Your task to perform on an android device: turn off data saver in the chrome app Image 0: 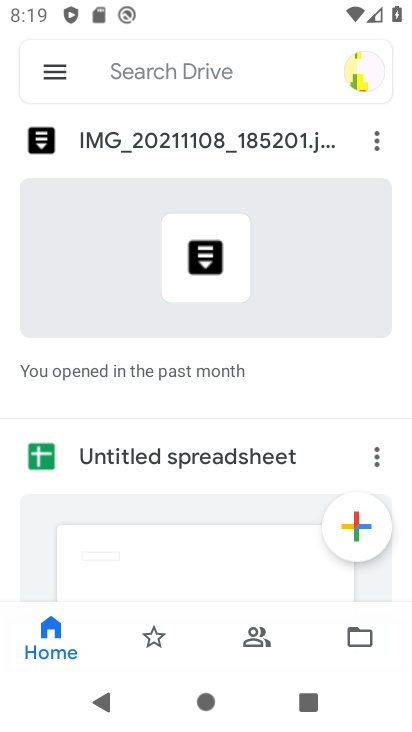
Step 0: press home button
Your task to perform on an android device: turn off data saver in the chrome app Image 1: 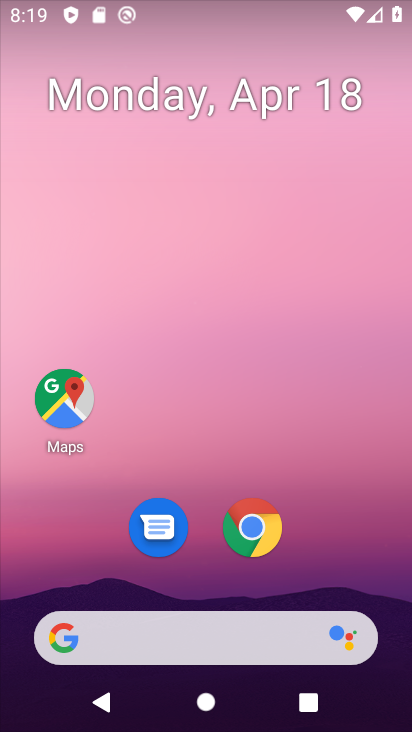
Step 1: click (264, 535)
Your task to perform on an android device: turn off data saver in the chrome app Image 2: 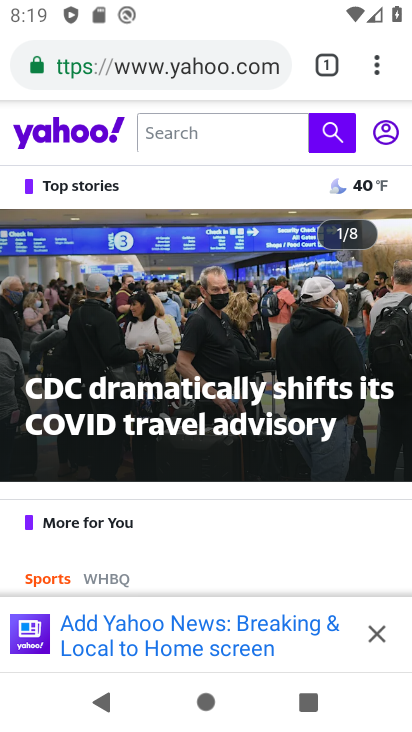
Step 2: click (374, 67)
Your task to perform on an android device: turn off data saver in the chrome app Image 3: 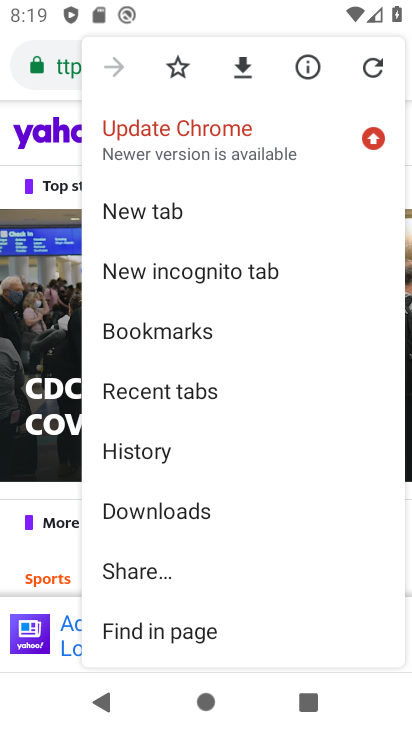
Step 3: drag from (151, 607) to (235, 121)
Your task to perform on an android device: turn off data saver in the chrome app Image 4: 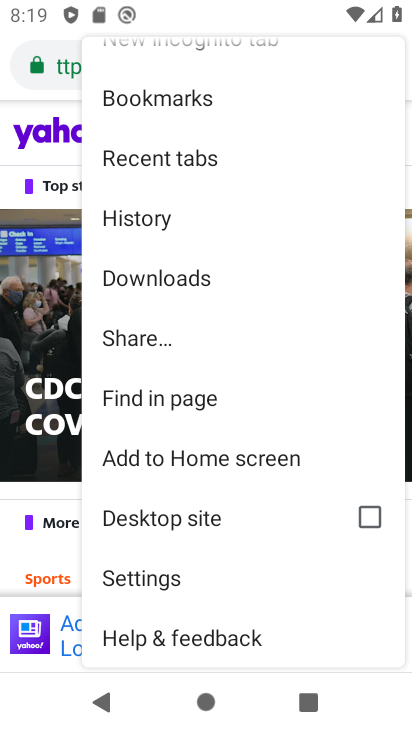
Step 4: click (155, 582)
Your task to perform on an android device: turn off data saver in the chrome app Image 5: 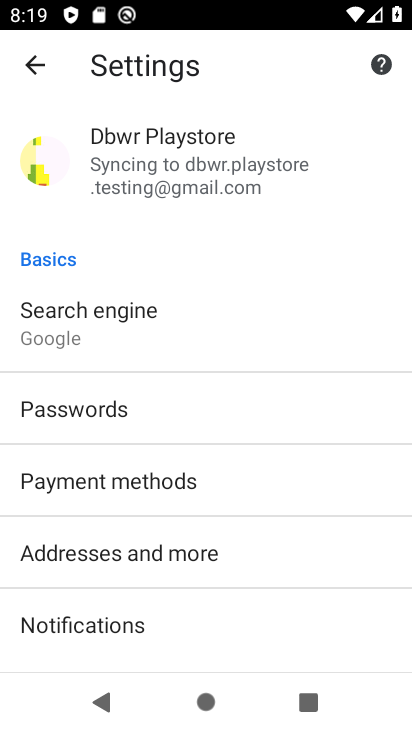
Step 5: drag from (158, 513) to (188, 299)
Your task to perform on an android device: turn off data saver in the chrome app Image 6: 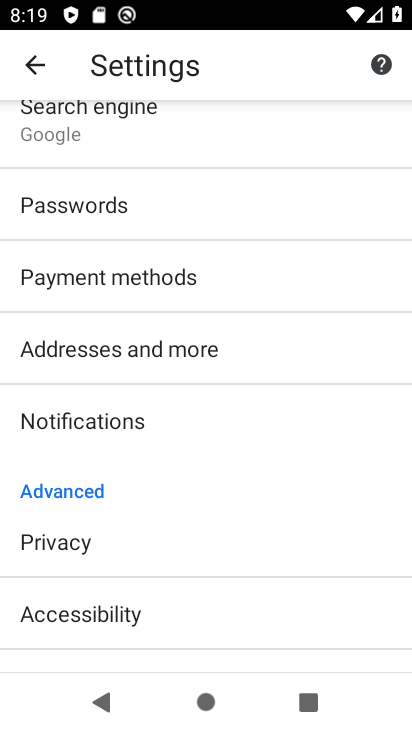
Step 6: drag from (126, 530) to (207, 164)
Your task to perform on an android device: turn off data saver in the chrome app Image 7: 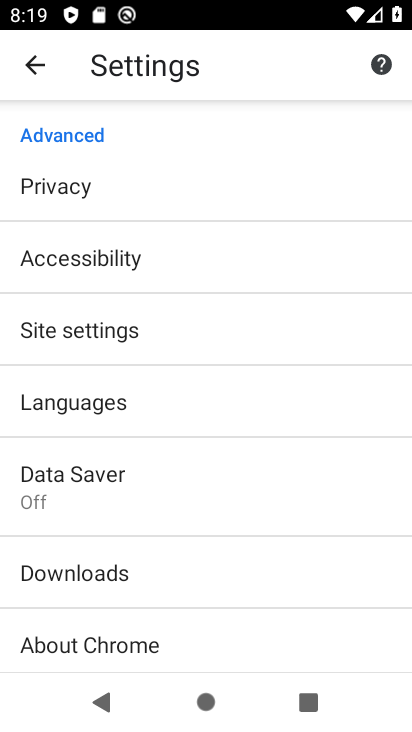
Step 7: click (87, 475)
Your task to perform on an android device: turn off data saver in the chrome app Image 8: 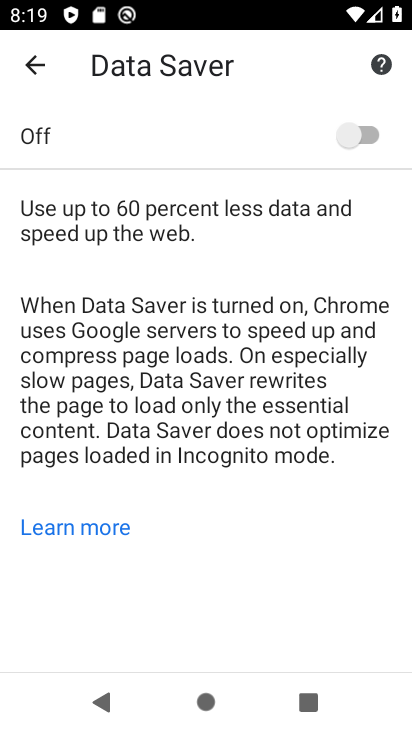
Step 8: task complete